Your task to perform on an android device: see creations saved in the google photos Image 0: 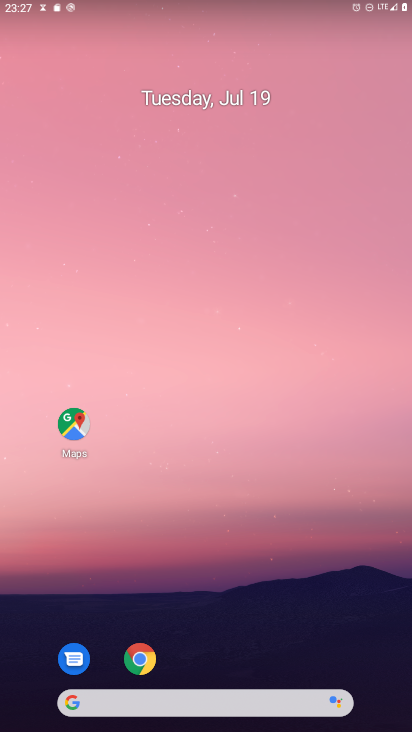
Step 0: drag from (257, 645) to (281, 220)
Your task to perform on an android device: see creations saved in the google photos Image 1: 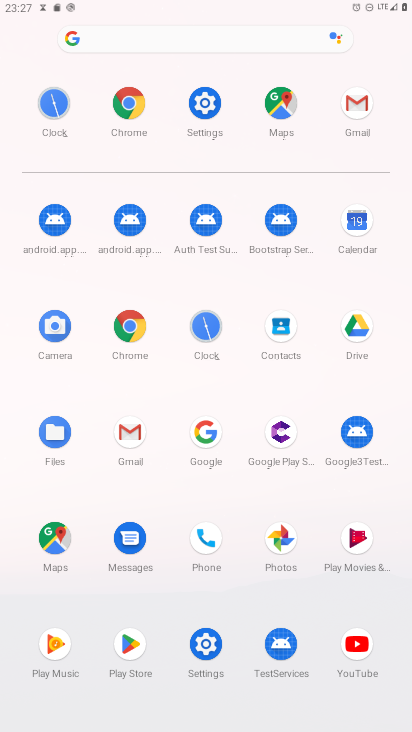
Step 1: click (286, 526)
Your task to perform on an android device: see creations saved in the google photos Image 2: 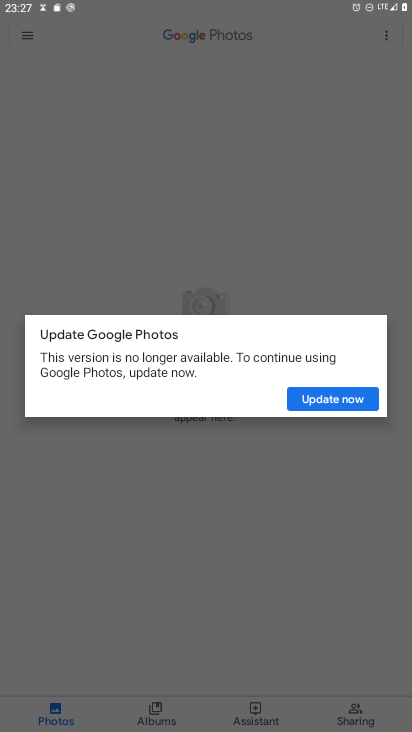
Step 2: click (338, 394)
Your task to perform on an android device: see creations saved in the google photos Image 3: 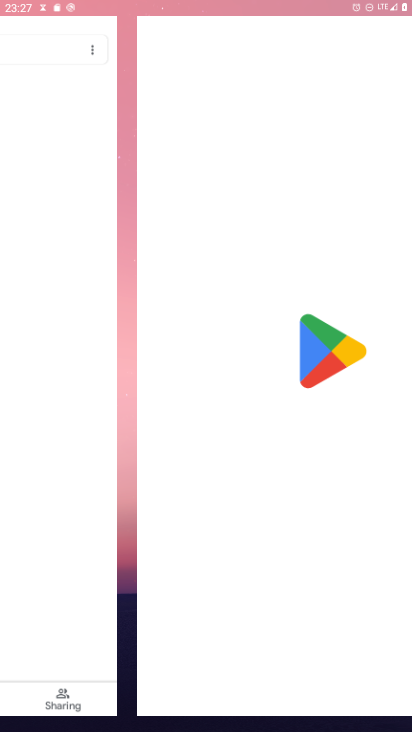
Step 3: press back button
Your task to perform on an android device: see creations saved in the google photos Image 4: 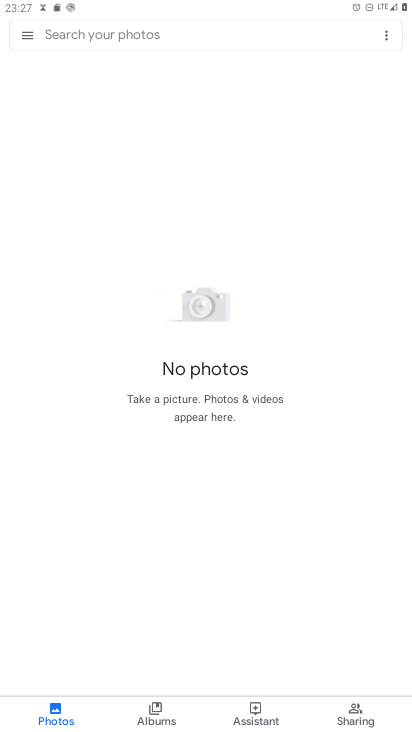
Step 4: click (161, 704)
Your task to perform on an android device: see creations saved in the google photos Image 5: 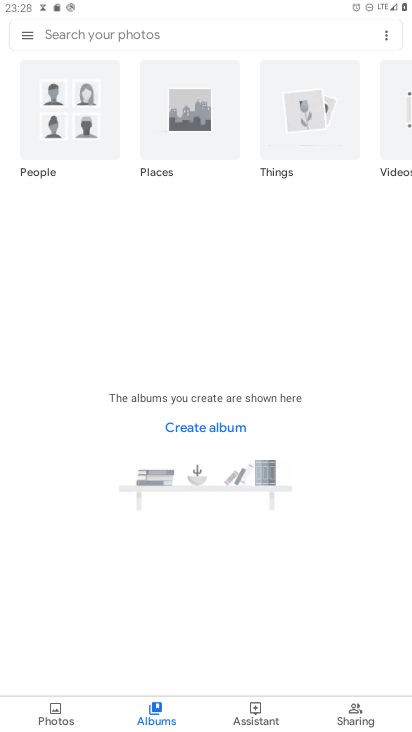
Step 5: task complete